Your task to perform on an android device: Open Google Maps Image 0: 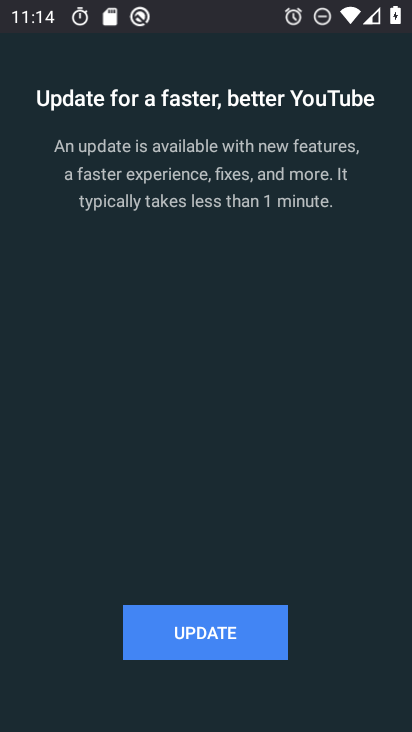
Step 0: press home button
Your task to perform on an android device: Open Google Maps Image 1: 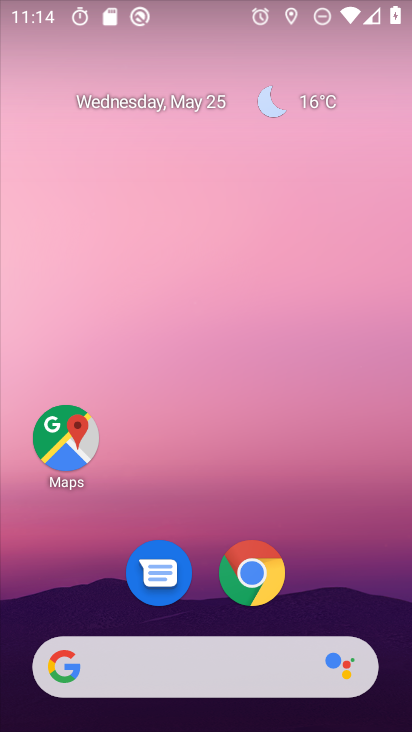
Step 1: click (60, 452)
Your task to perform on an android device: Open Google Maps Image 2: 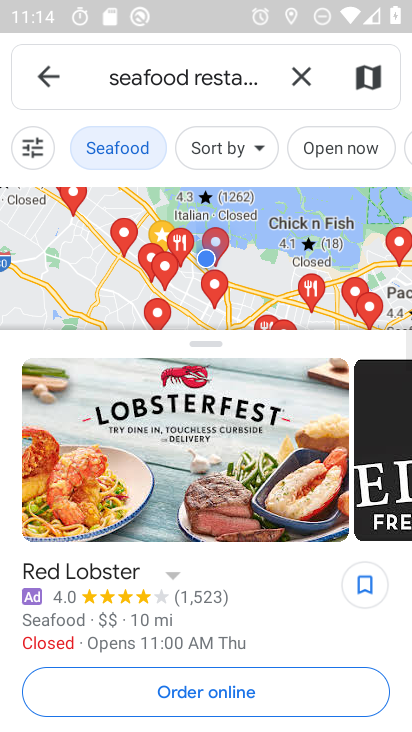
Step 2: task complete